Your task to perform on an android device: Open CNN.com Image 0: 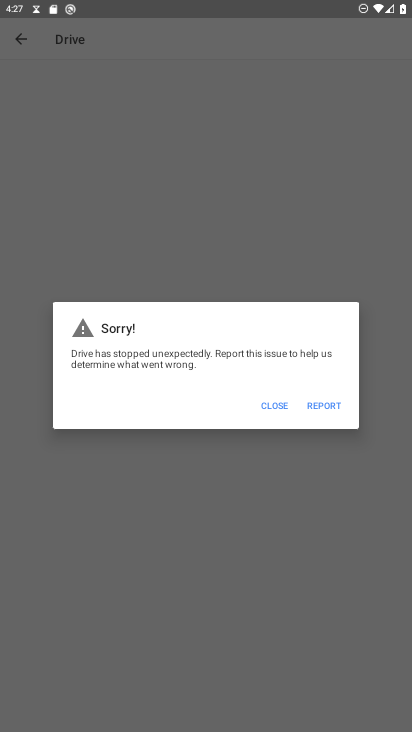
Step 0: press home button
Your task to perform on an android device: Open CNN.com Image 1: 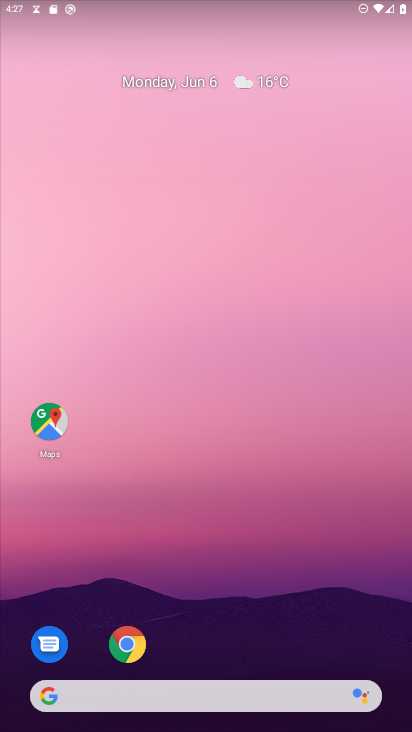
Step 1: click (119, 643)
Your task to perform on an android device: Open CNN.com Image 2: 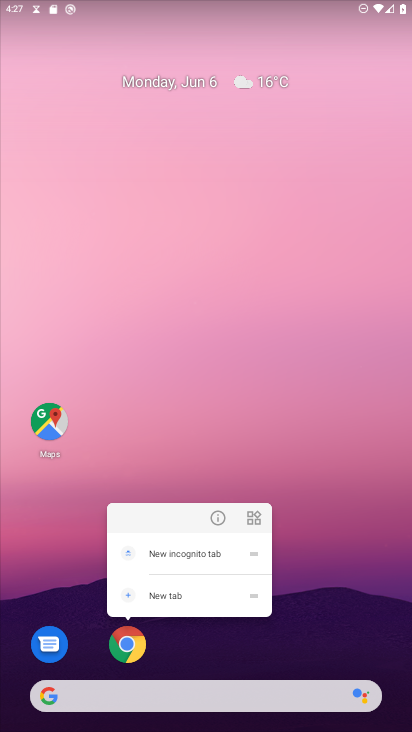
Step 2: click (135, 647)
Your task to perform on an android device: Open CNN.com Image 3: 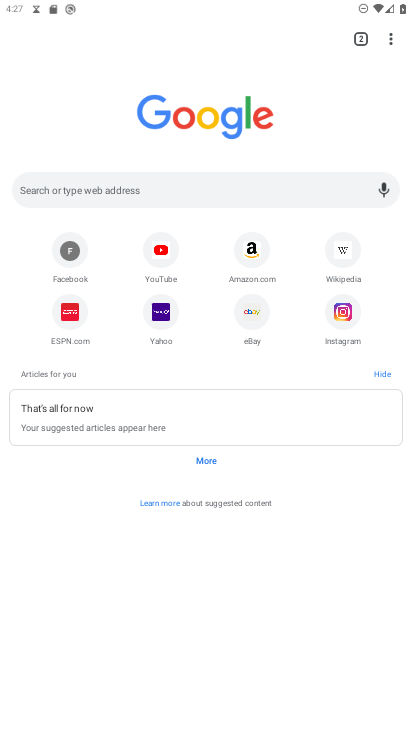
Step 3: click (195, 187)
Your task to perform on an android device: Open CNN.com Image 4: 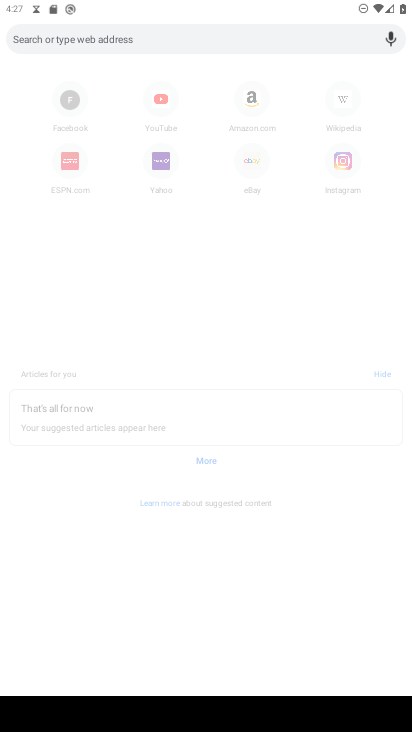
Step 4: type "cnn.com"
Your task to perform on an android device: Open CNN.com Image 5: 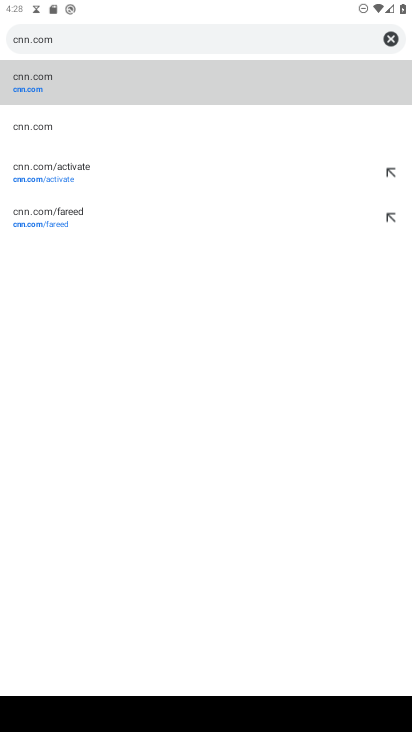
Step 5: click (159, 78)
Your task to perform on an android device: Open CNN.com Image 6: 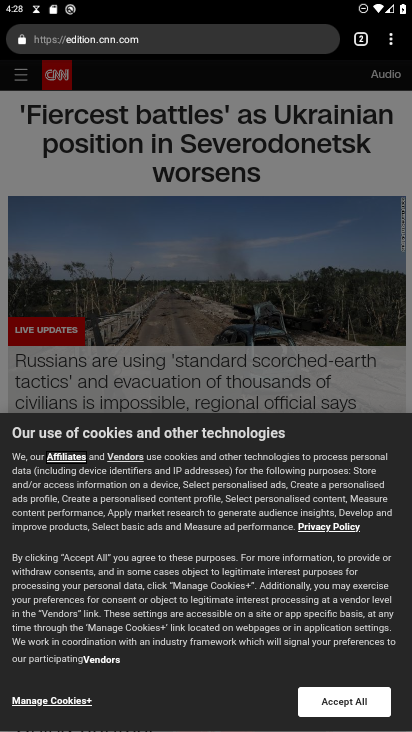
Step 6: click (329, 709)
Your task to perform on an android device: Open CNN.com Image 7: 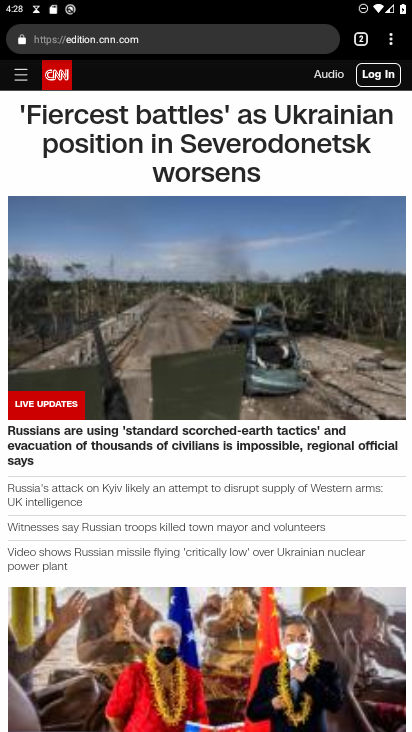
Step 7: task complete